Your task to perform on an android device: open app "Yahoo Mail" (install if not already installed) Image 0: 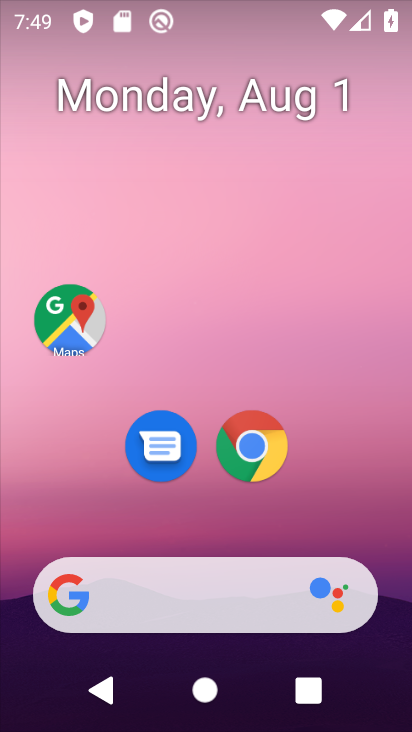
Step 0: drag from (199, 542) to (186, 81)
Your task to perform on an android device: open app "Yahoo Mail" (install if not already installed) Image 1: 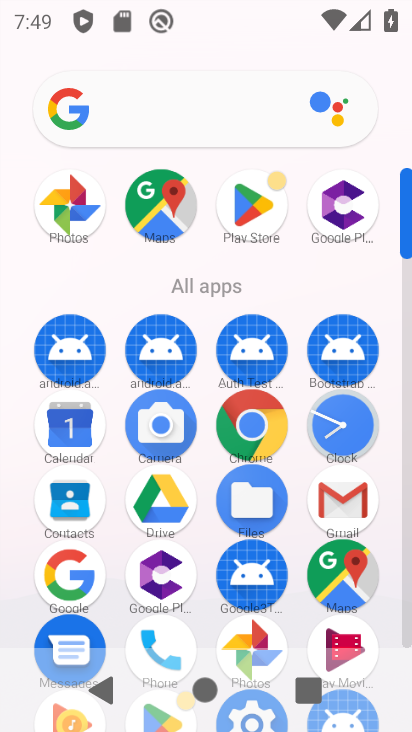
Step 1: click (261, 194)
Your task to perform on an android device: open app "Yahoo Mail" (install if not already installed) Image 2: 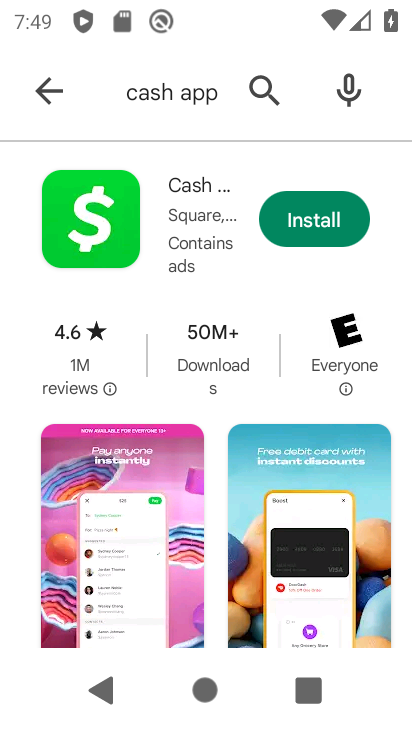
Step 2: click (251, 90)
Your task to perform on an android device: open app "Yahoo Mail" (install if not already installed) Image 3: 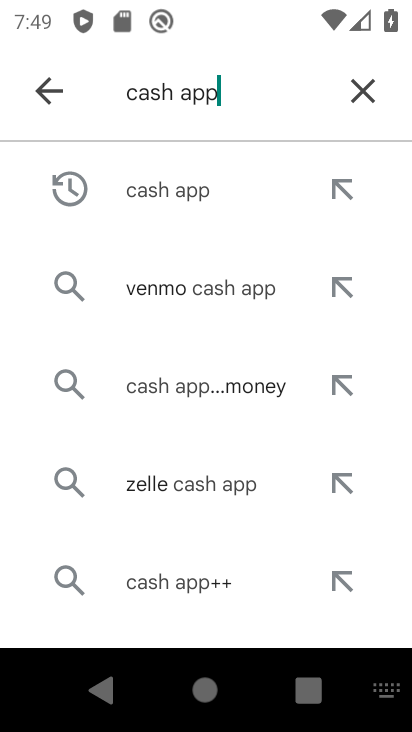
Step 3: click (356, 96)
Your task to perform on an android device: open app "Yahoo Mail" (install if not already installed) Image 4: 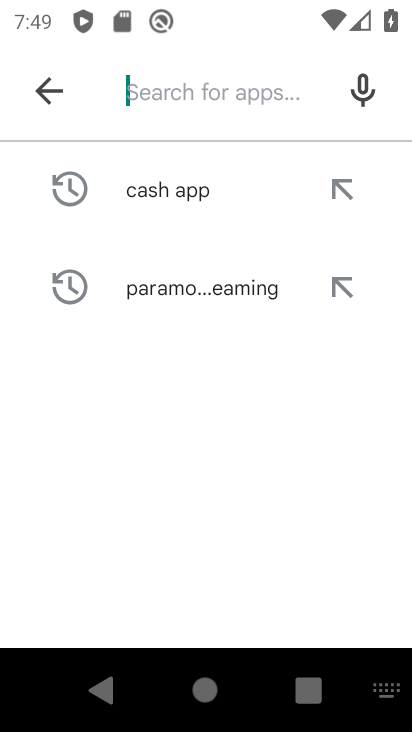
Step 4: type "Yahoo Mail"
Your task to perform on an android device: open app "Yahoo Mail" (install if not already installed) Image 5: 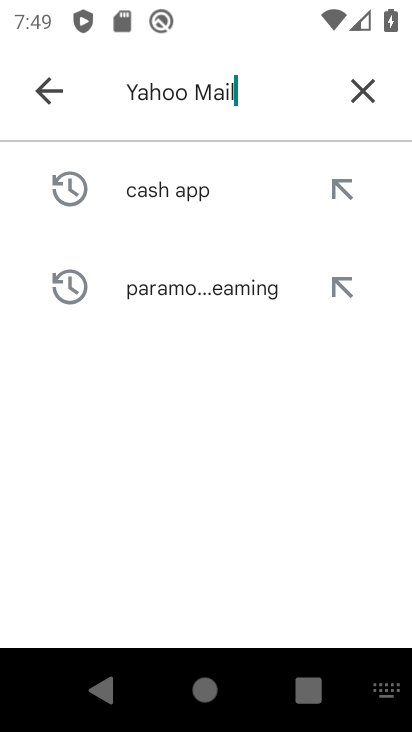
Step 5: type ""
Your task to perform on an android device: open app "Yahoo Mail" (install if not already installed) Image 6: 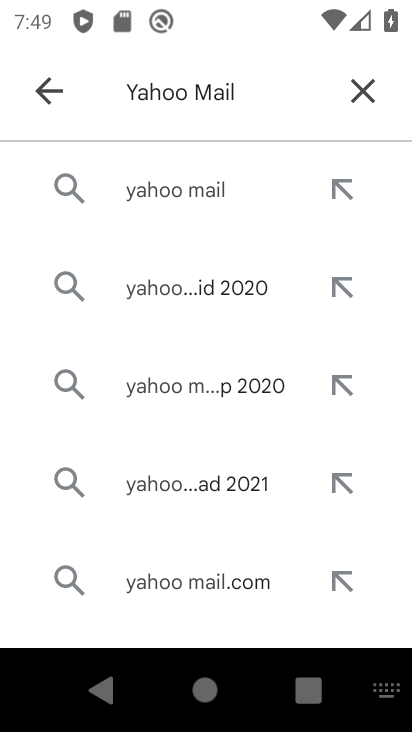
Step 6: click (186, 208)
Your task to perform on an android device: open app "Yahoo Mail" (install if not already installed) Image 7: 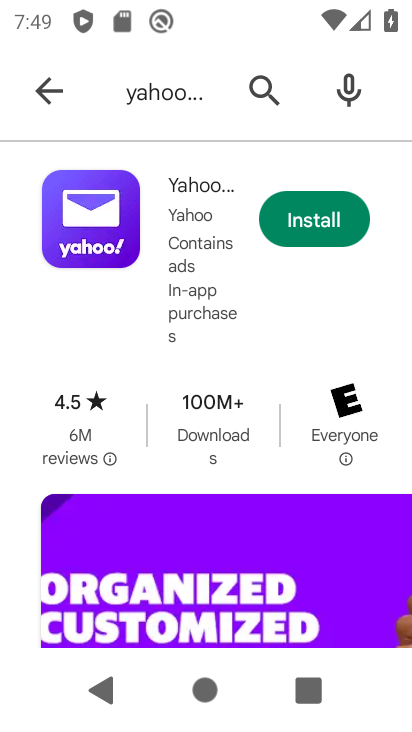
Step 7: click (297, 226)
Your task to perform on an android device: open app "Yahoo Mail" (install if not already installed) Image 8: 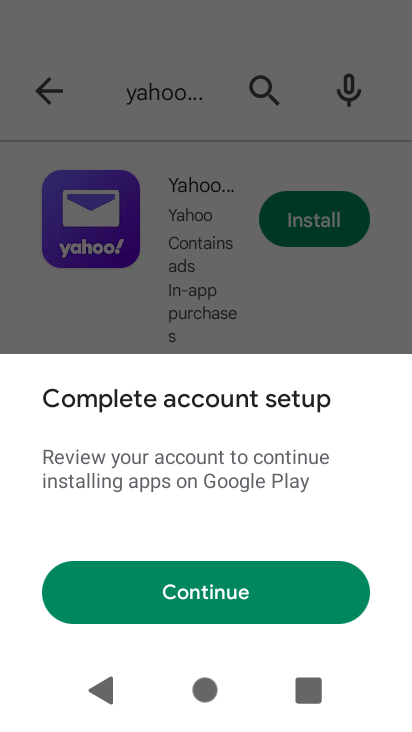
Step 8: click (231, 583)
Your task to perform on an android device: open app "Yahoo Mail" (install if not already installed) Image 9: 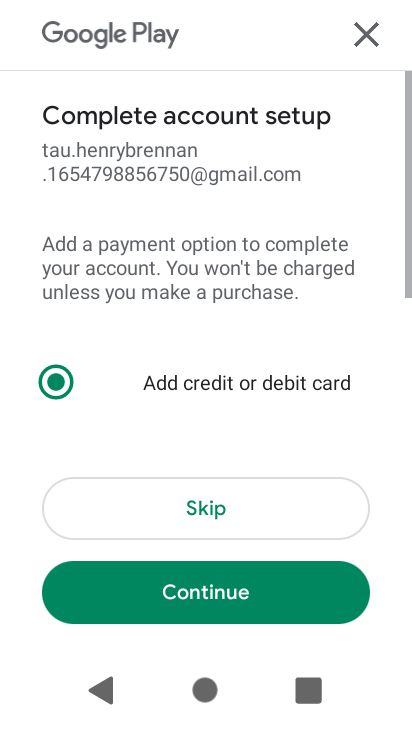
Step 9: click (184, 518)
Your task to perform on an android device: open app "Yahoo Mail" (install if not already installed) Image 10: 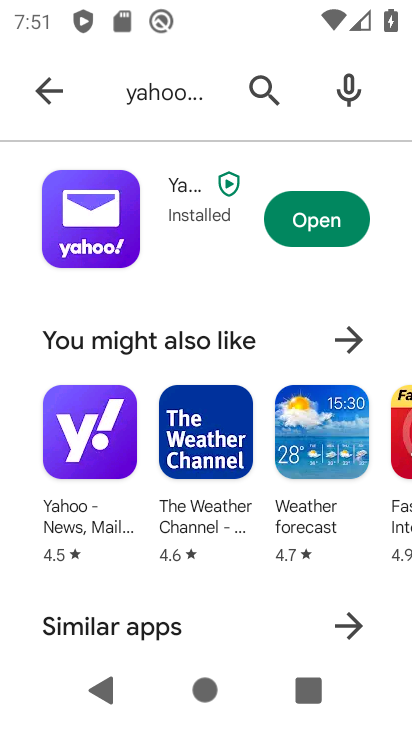
Step 10: click (289, 223)
Your task to perform on an android device: open app "Yahoo Mail" (install if not already installed) Image 11: 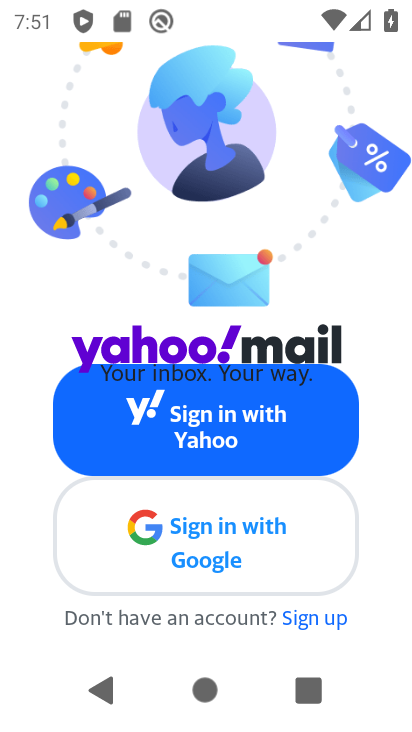
Step 11: task complete